Your task to perform on an android device: Open privacy settings Image 0: 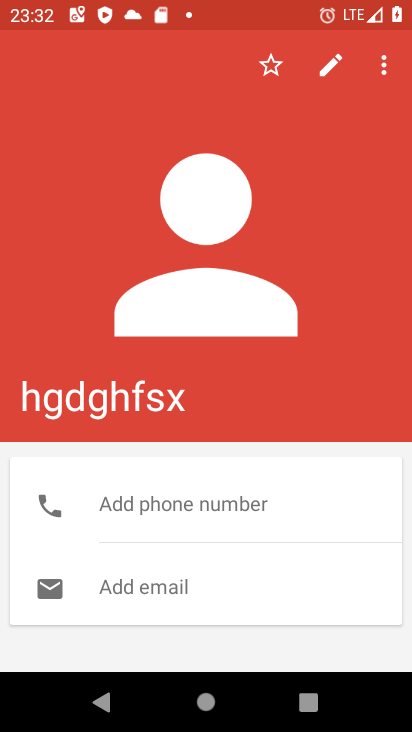
Step 0: press home button
Your task to perform on an android device: Open privacy settings Image 1: 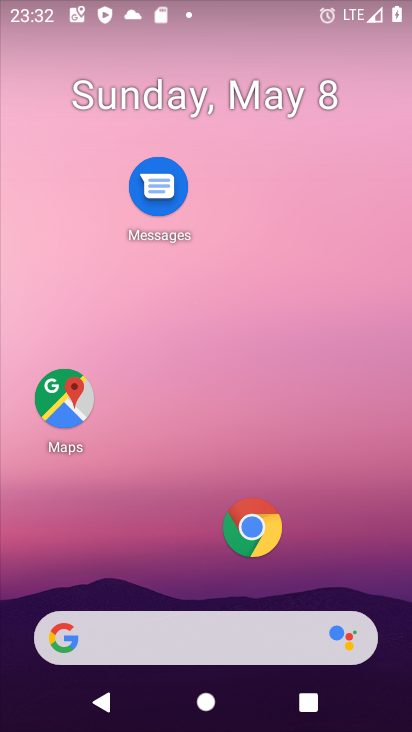
Step 1: click (253, 524)
Your task to perform on an android device: Open privacy settings Image 2: 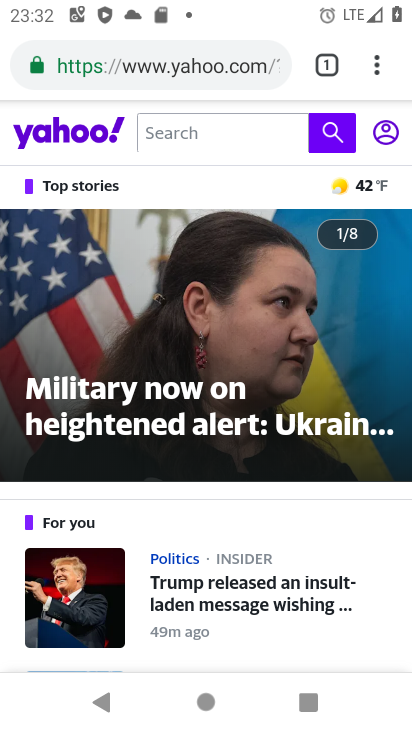
Step 2: click (372, 64)
Your task to perform on an android device: Open privacy settings Image 3: 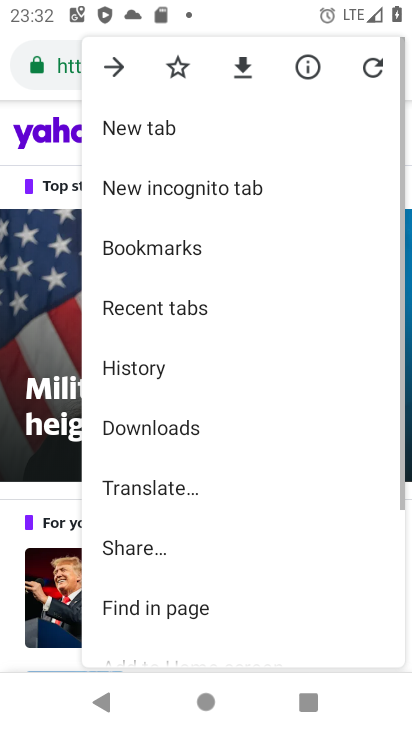
Step 3: drag from (170, 600) to (180, 174)
Your task to perform on an android device: Open privacy settings Image 4: 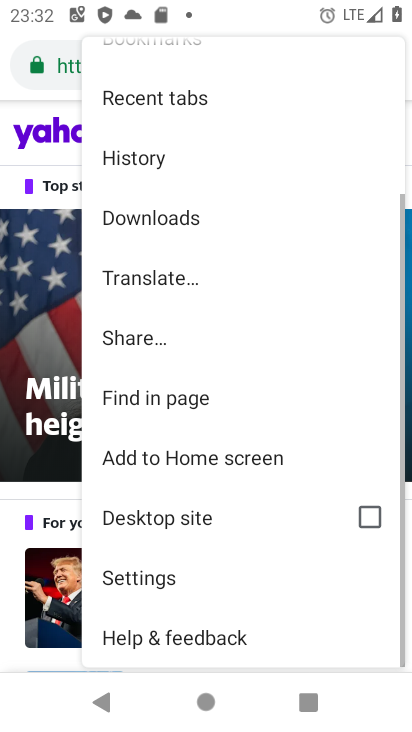
Step 4: click (195, 584)
Your task to perform on an android device: Open privacy settings Image 5: 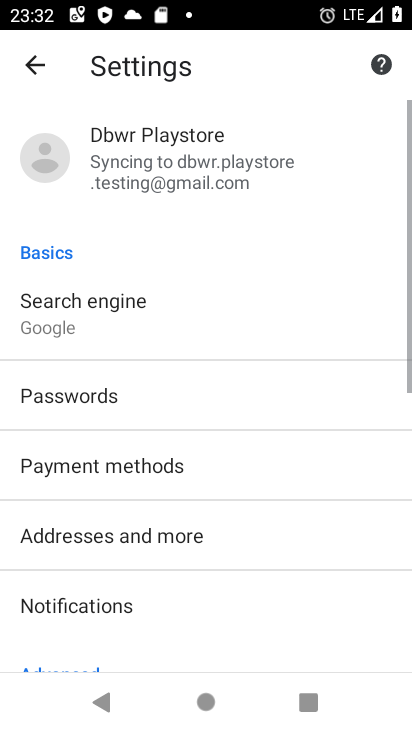
Step 5: drag from (147, 476) to (108, 110)
Your task to perform on an android device: Open privacy settings Image 6: 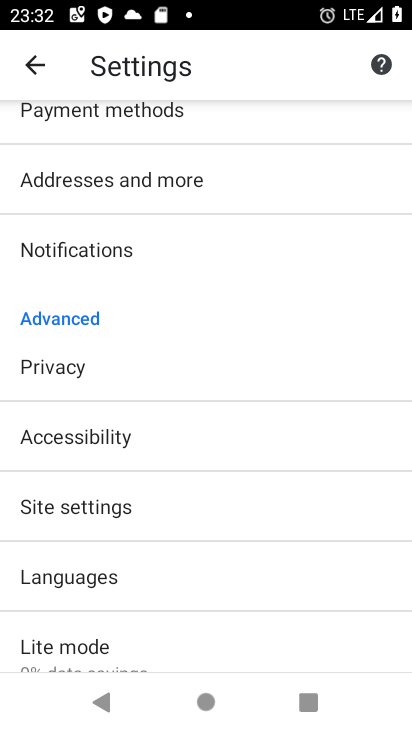
Step 6: click (110, 374)
Your task to perform on an android device: Open privacy settings Image 7: 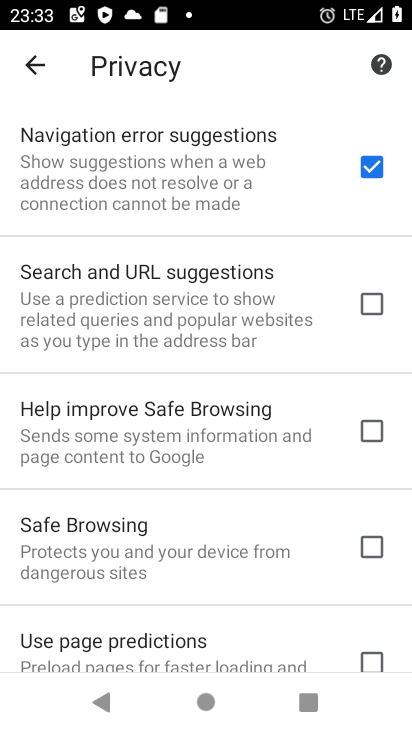
Step 7: task complete